Your task to perform on an android device: open wifi settings Image 0: 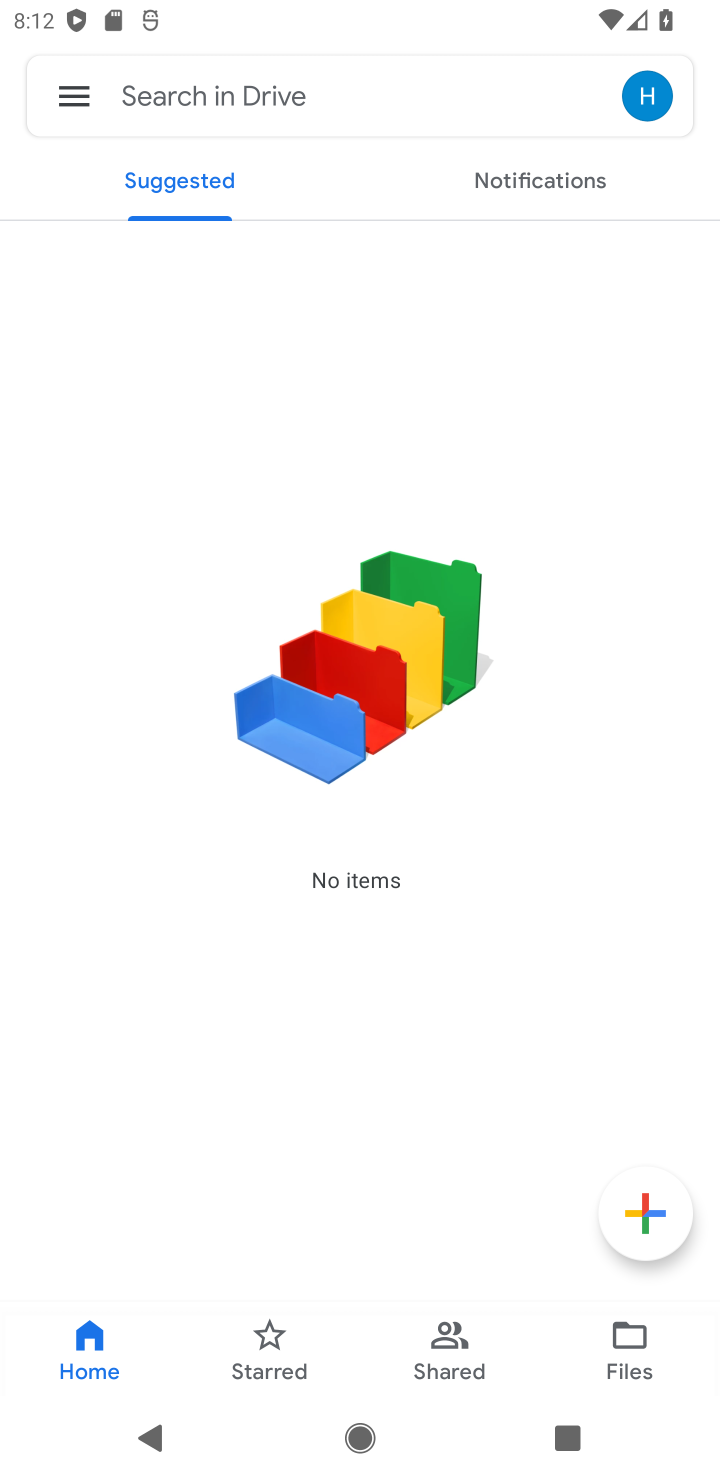
Step 0: press home button
Your task to perform on an android device: open wifi settings Image 1: 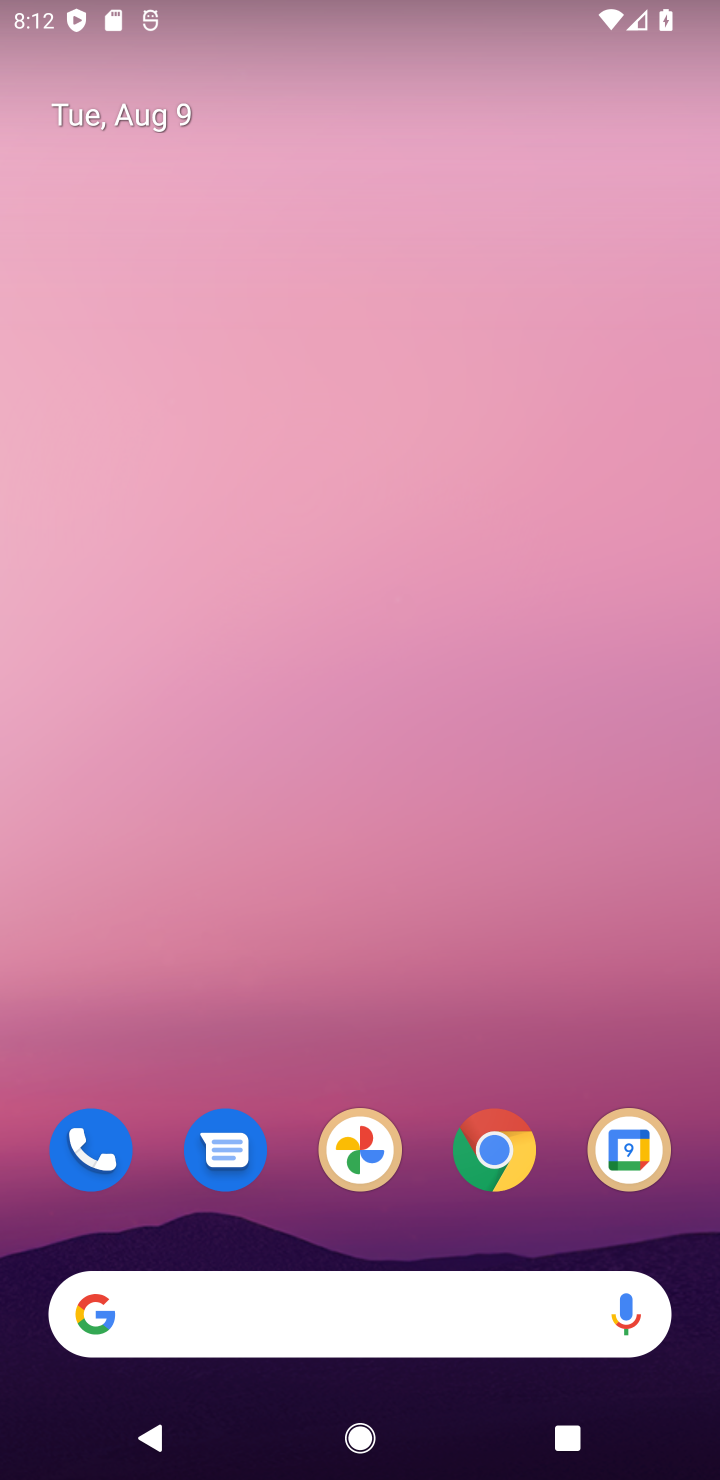
Step 1: drag from (427, 1303) to (719, 394)
Your task to perform on an android device: open wifi settings Image 2: 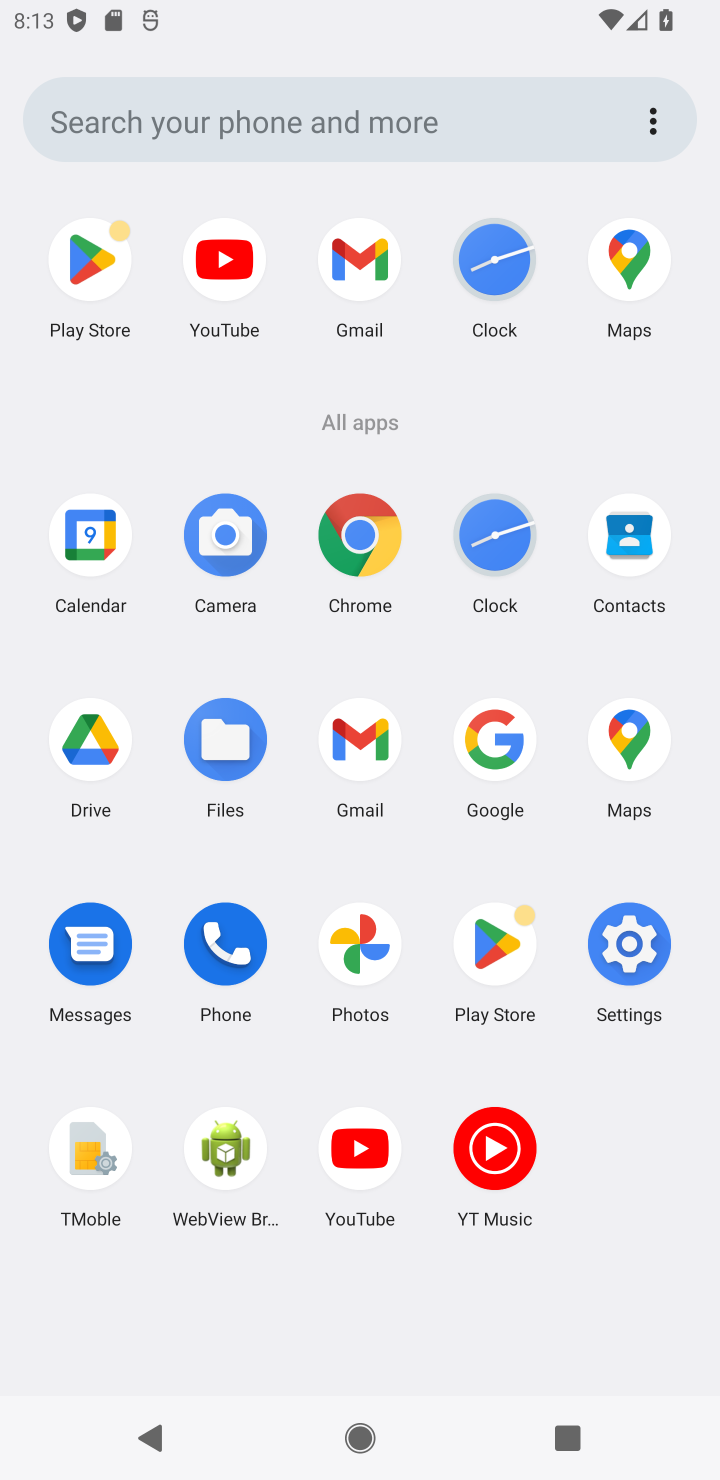
Step 2: click (621, 932)
Your task to perform on an android device: open wifi settings Image 3: 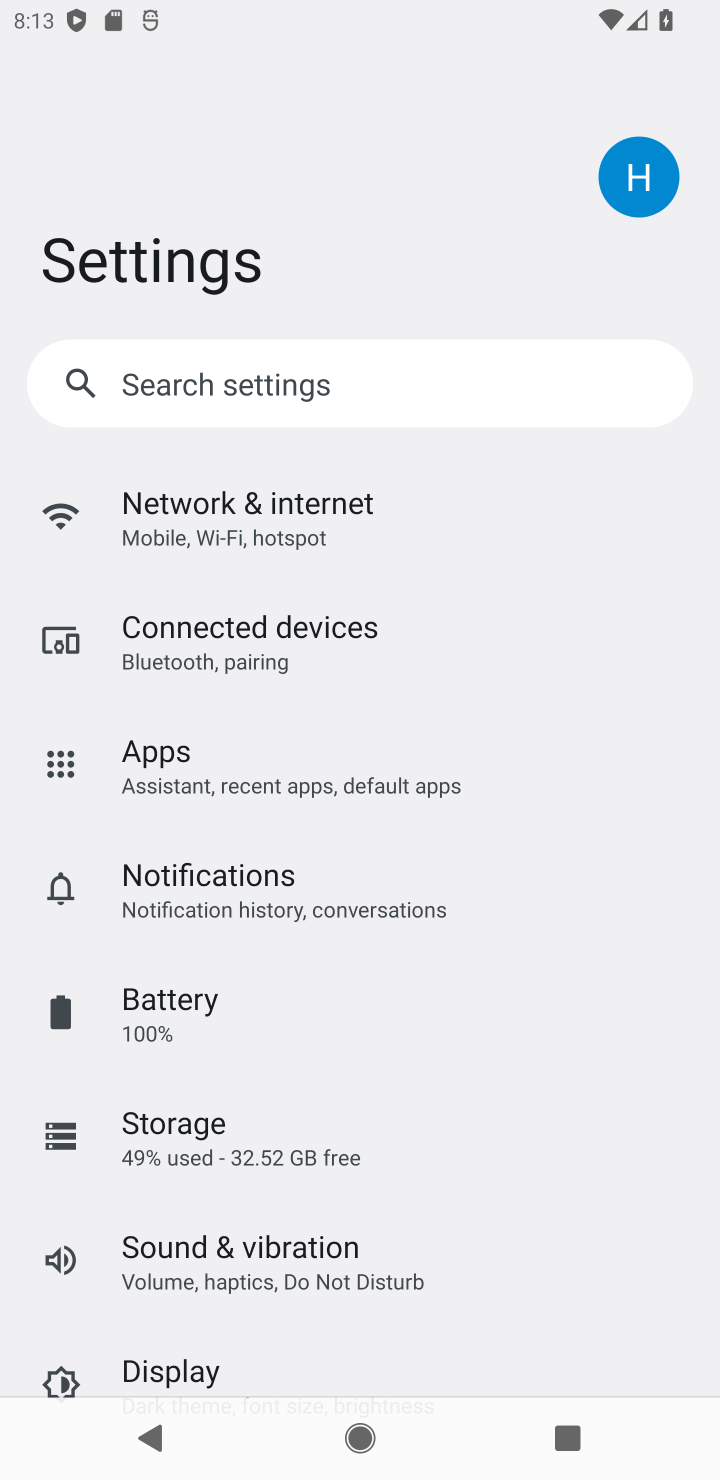
Step 3: click (317, 501)
Your task to perform on an android device: open wifi settings Image 4: 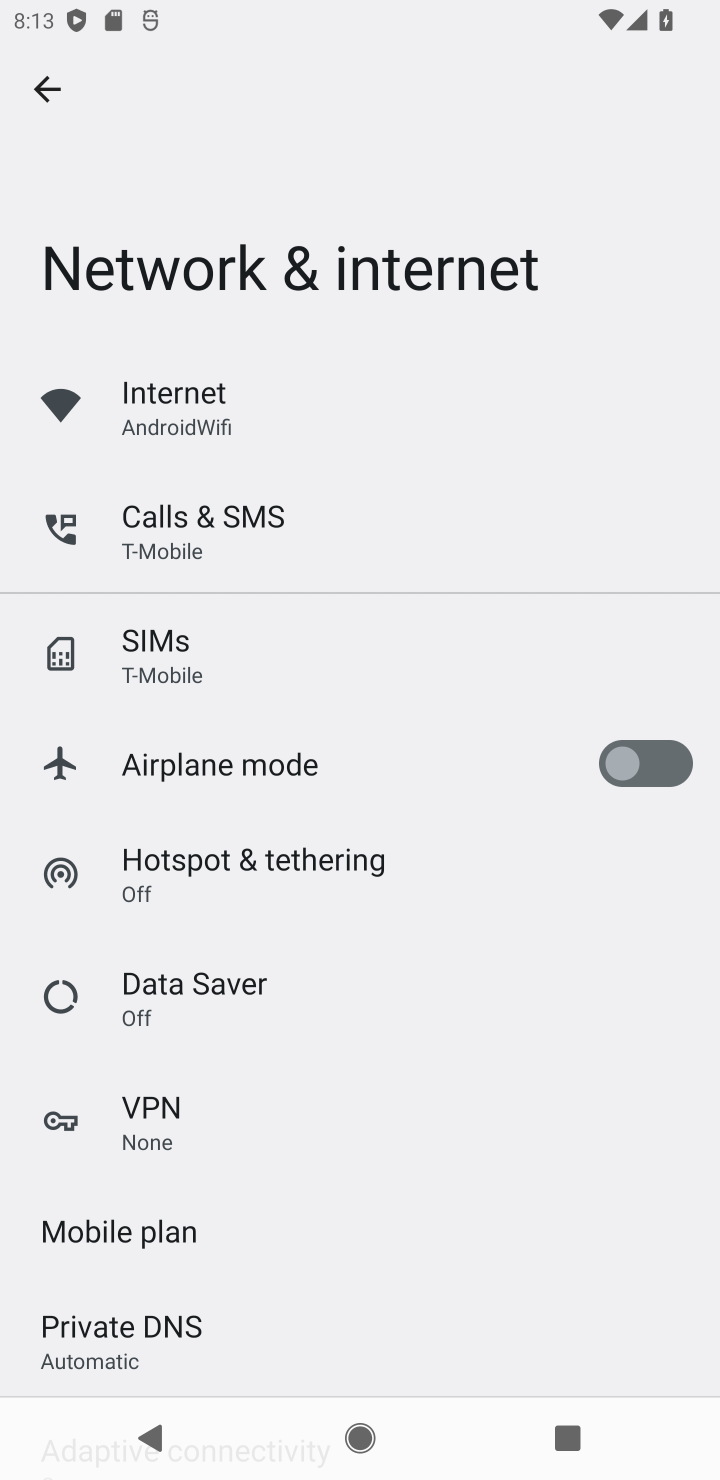
Step 4: click (199, 401)
Your task to perform on an android device: open wifi settings Image 5: 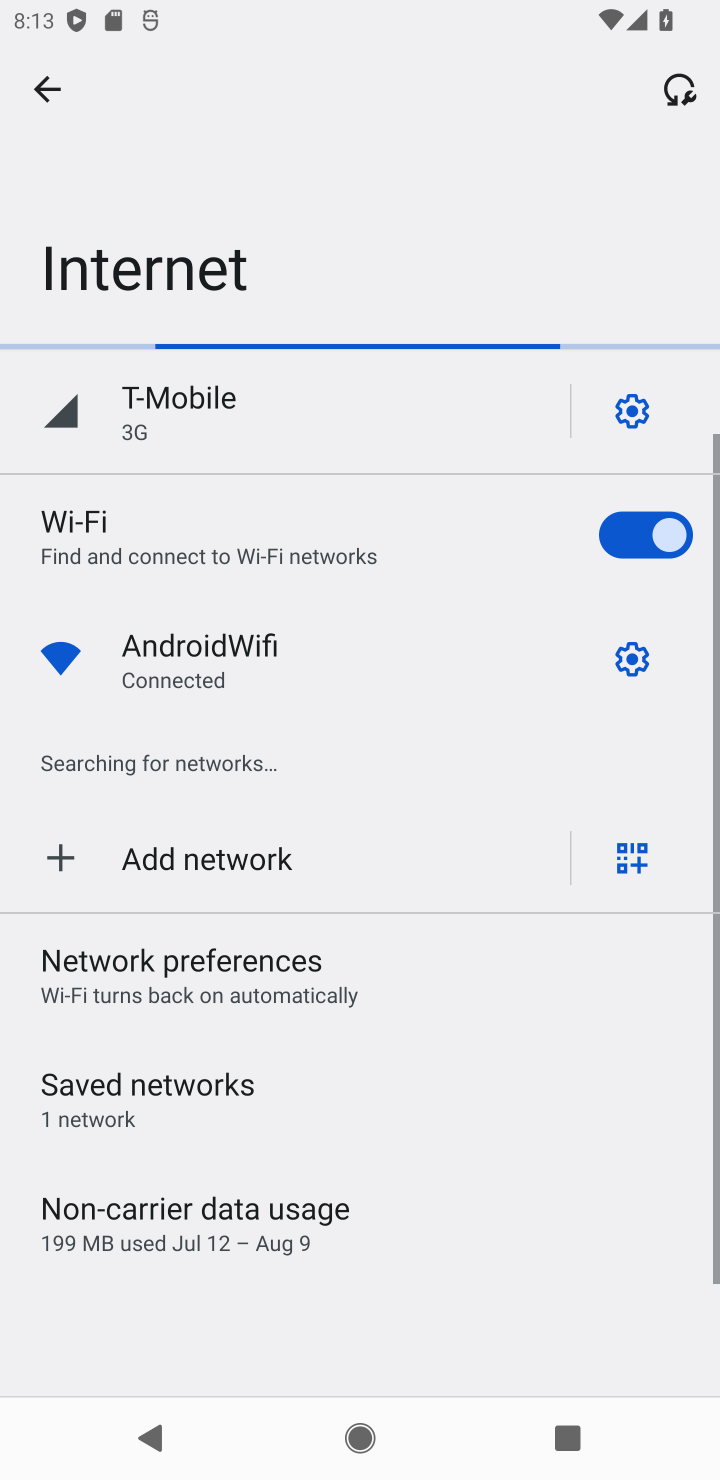
Step 5: click (627, 651)
Your task to perform on an android device: open wifi settings Image 6: 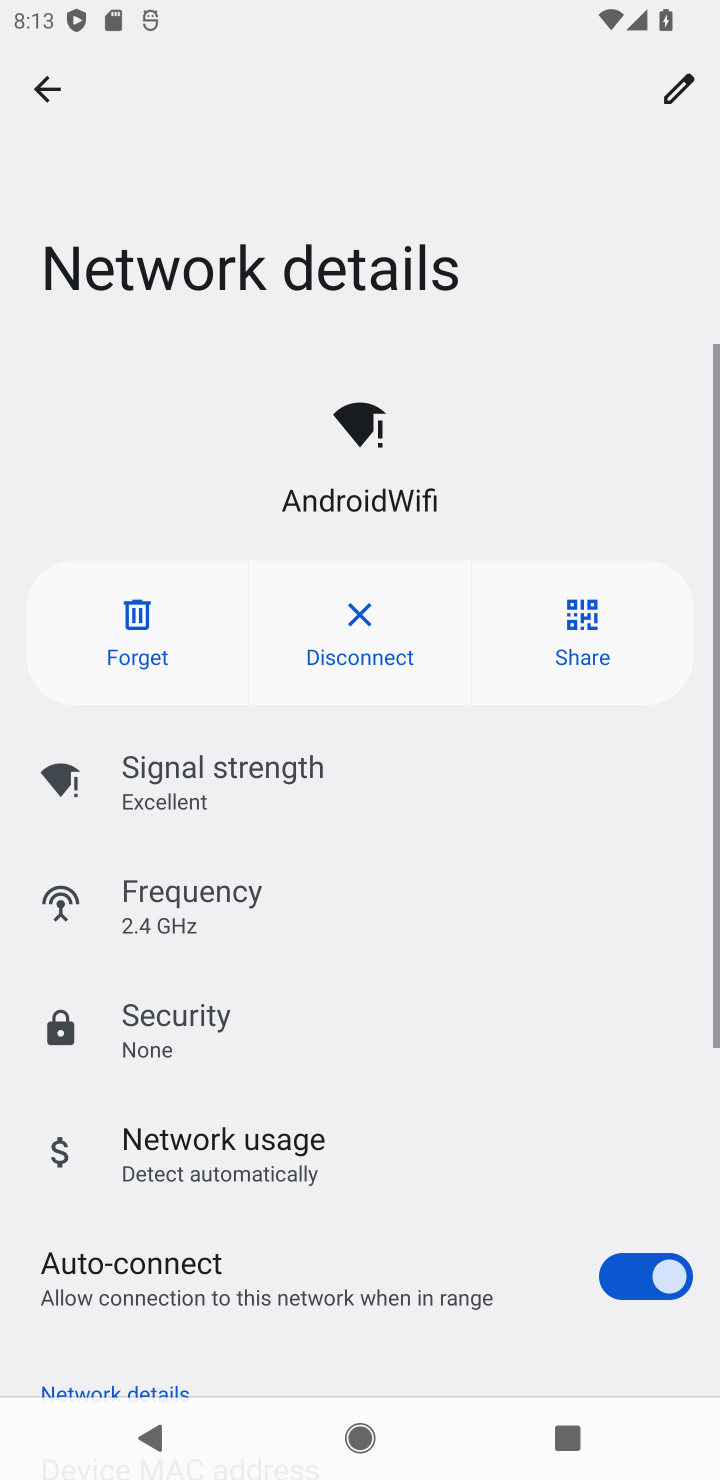
Step 6: task complete